Your task to perform on an android device: show emergency info Image 0: 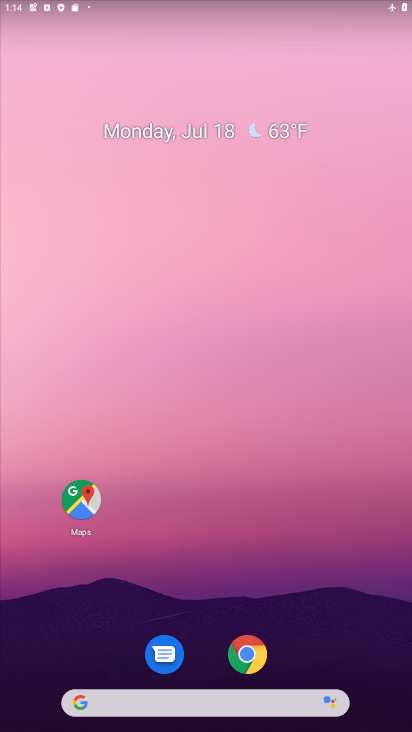
Step 0: drag from (206, 611) to (289, 56)
Your task to perform on an android device: show emergency info Image 1: 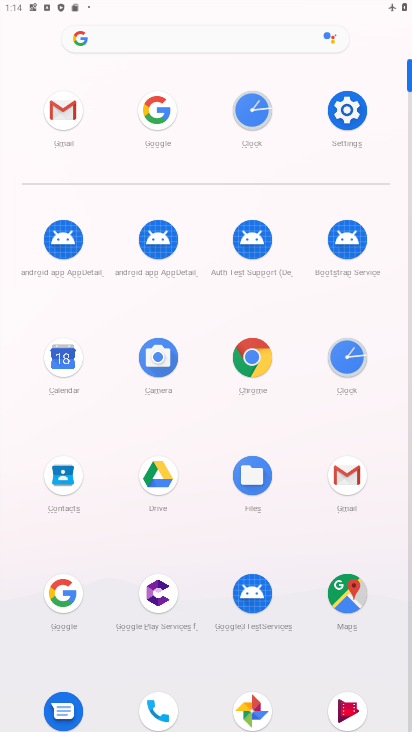
Step 1: click (351, 102)
Your task to perform on an android device: show emergency info Image 2: 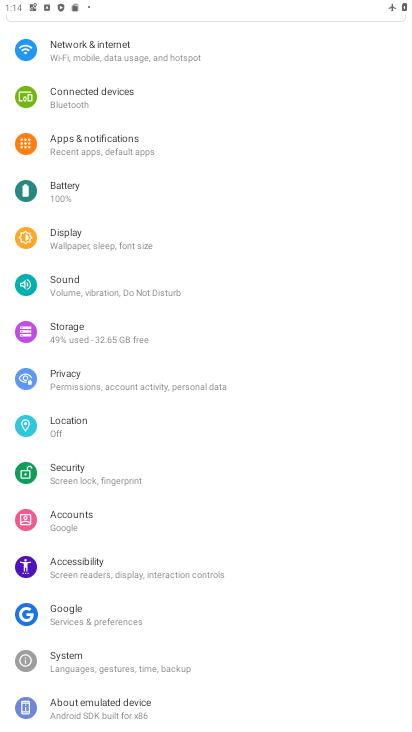
Step 2: drag from (140, 690) to (234, 136)
Your task to perform on an android device: show emergency info Image 3: 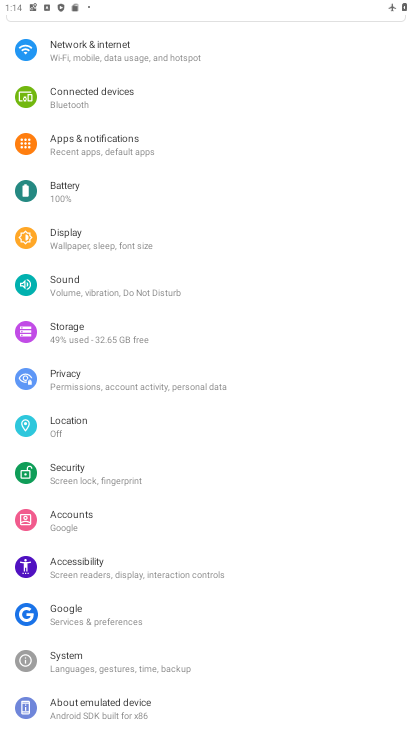
Step 3: click (146, 696)
Your task to perform on an android device: show emergency info Image 4: 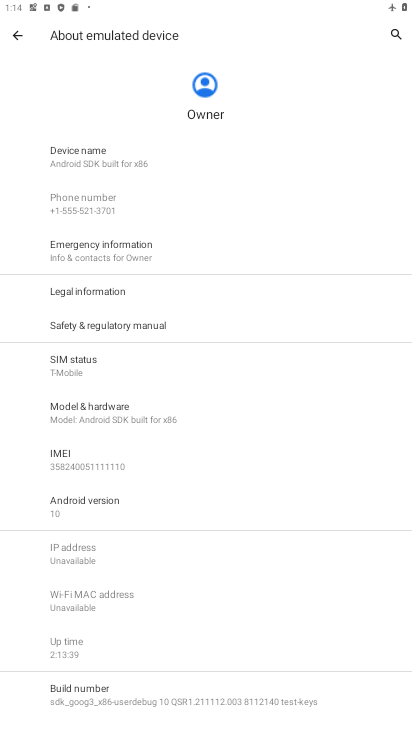
Step 4: click (126, 257)
Your task to perform on an android device: show emergency info Image 5: 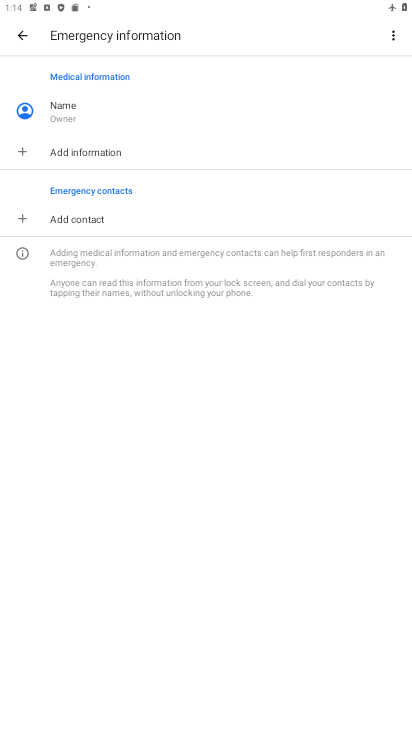
Step 5: task complete